Your task to perform on an android device: Go to settings Image 0: 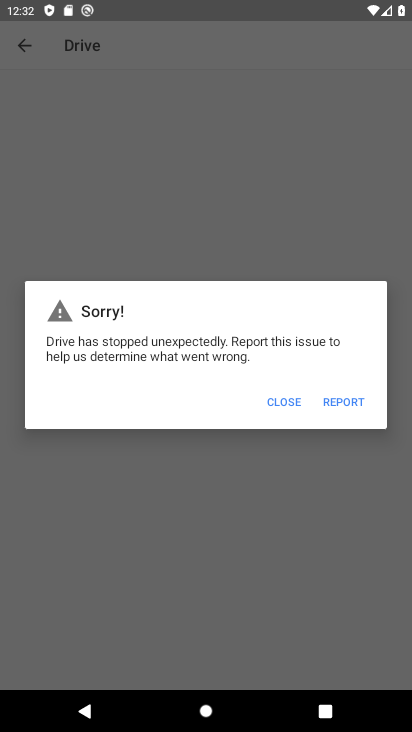
Step 0: press home button
Your task to perform on an android device: Go to settings Image 1: 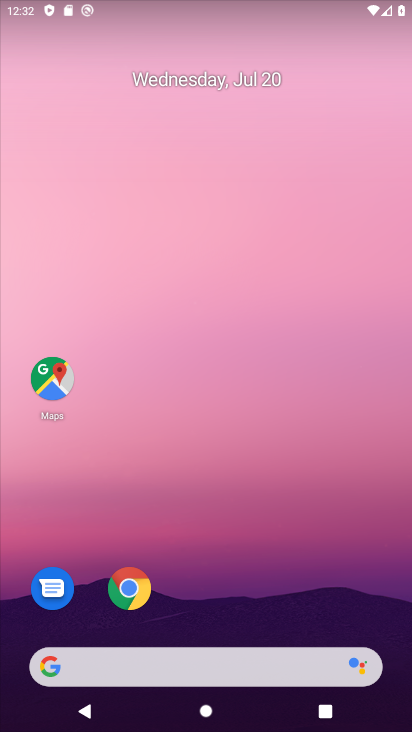
Step 1: drag from (61, 642) to (347, 72)
Your task to perform on an android device: Go to settings Image 2: 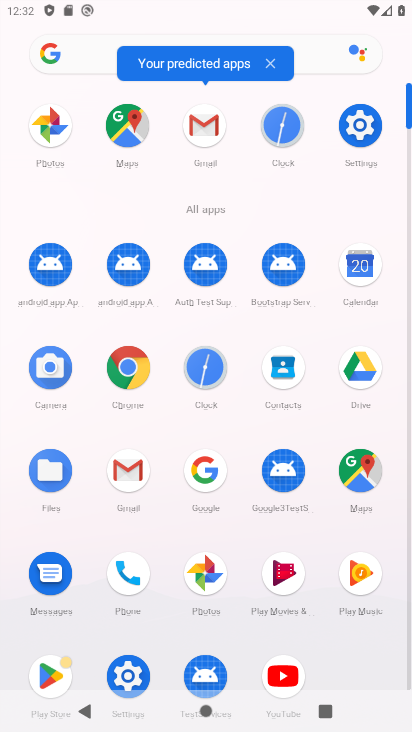
Step 2: click (122, 665)
Your task to perform on an android device: Go to settings Image 3: 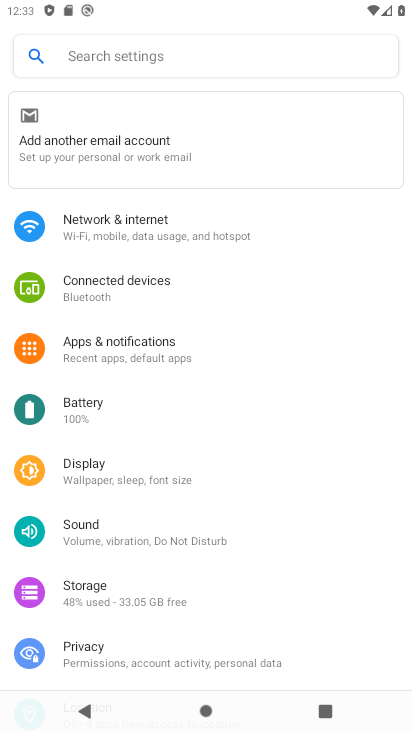
Step 3: task complete